Your task to perform on an android device: What's the weather today? Image 0: 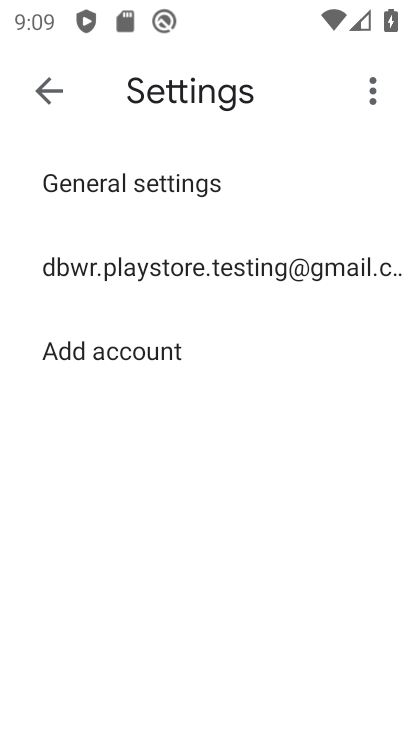
Step 0: press home button
Your task to perform on an android device: What's the weather today? Image 1: 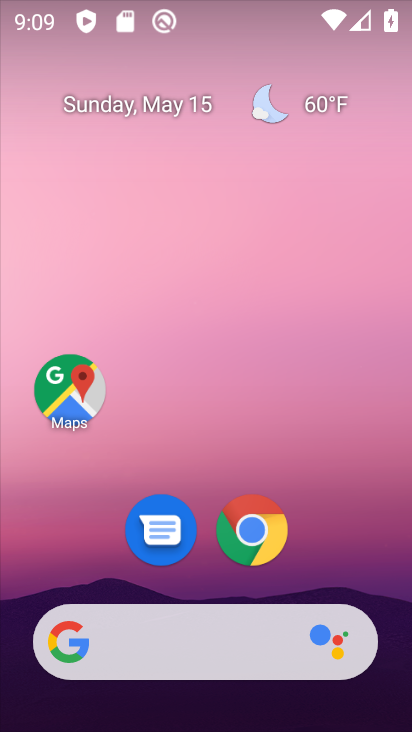
Step 1: click (209, 634)
Your task to perform on an android device: What's the weather today? Image 2: 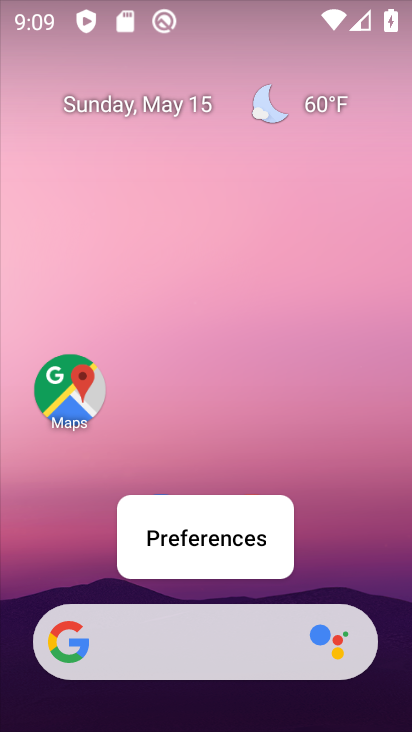
Step 2: click (263, 637)
Your task to perform on an android device: What's the weather today? Image 3: 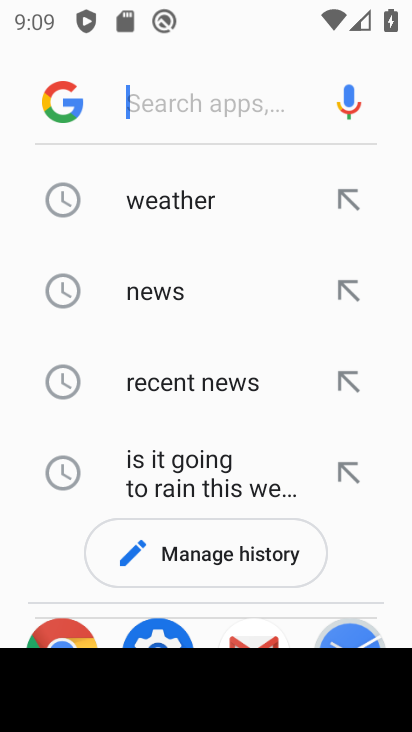
Step 3: click (212, 194)
Your task to perform on an android device: What's the weather today? Image 4: 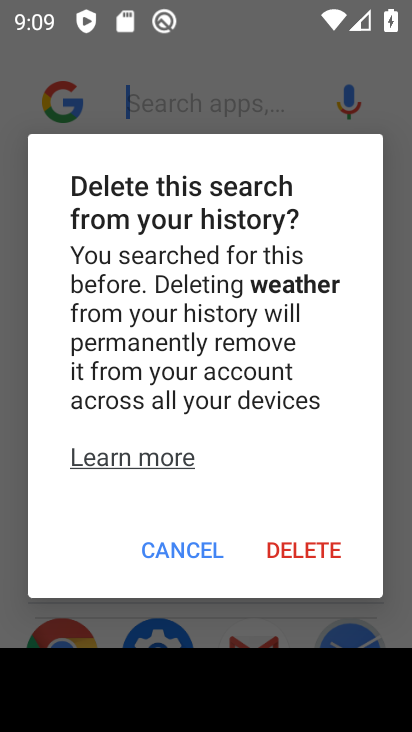
Step 4: click (184, 551)
Your task to perform on an android device: What's the weather today? Image 5: 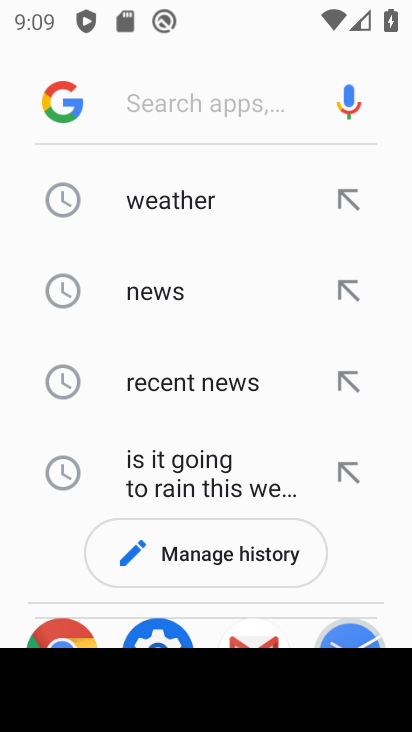
Step 5: click (211, 205)
Your task to perform on an android device: What's the weather today? Image 6: 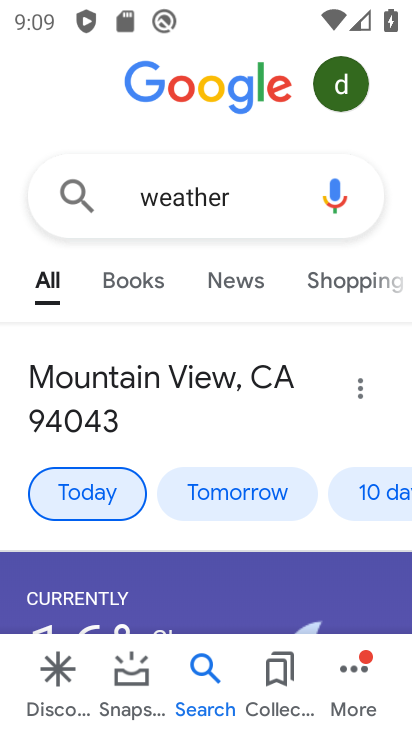
Step 6: task complete